Your task to perform on an android device: turn off picture-in-picture Image 0: 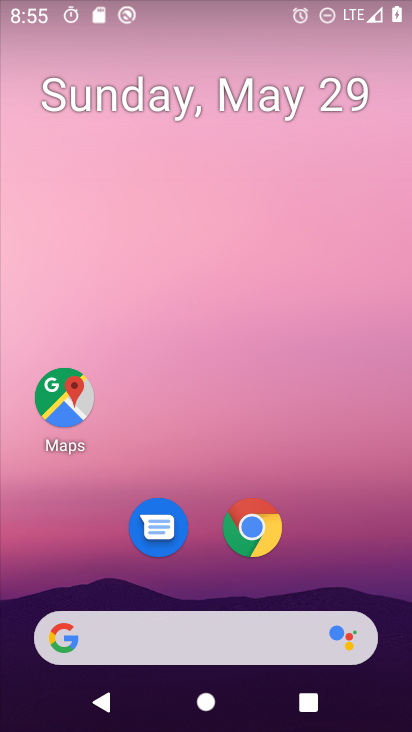
Step 0: drag from (397, 621) to (286, 10)
Your task to perform on an android device: turn off picture-in-picture Image 1: 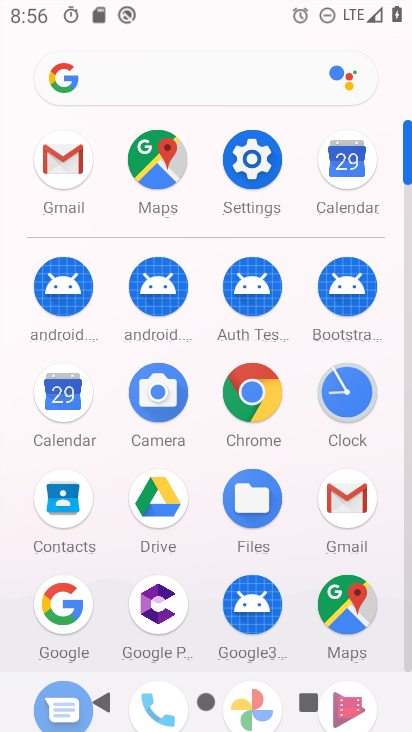
Step 1: click (259, 396)
Your task to perform on an android device: turn off picture-in-picture Image 2: 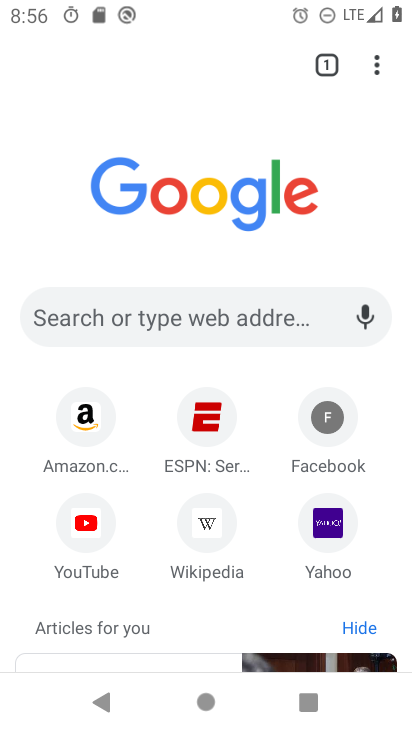
Step 2: task complete